Your task to perform on an android device: turn on sleep mode Image 0: 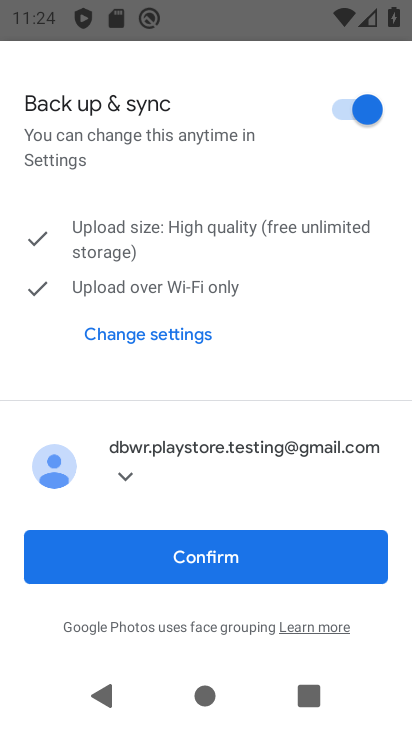
Step 0: press home button
Your task to perform on an android device: turn on sleep mode Image 1: 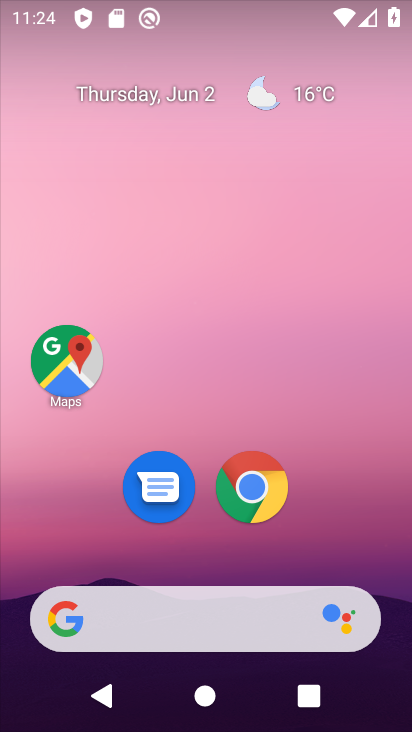
Step 1: drag from (374, 553) to (337, 228)
Your task to perform on an android device: turn on sleep mode Image 2: 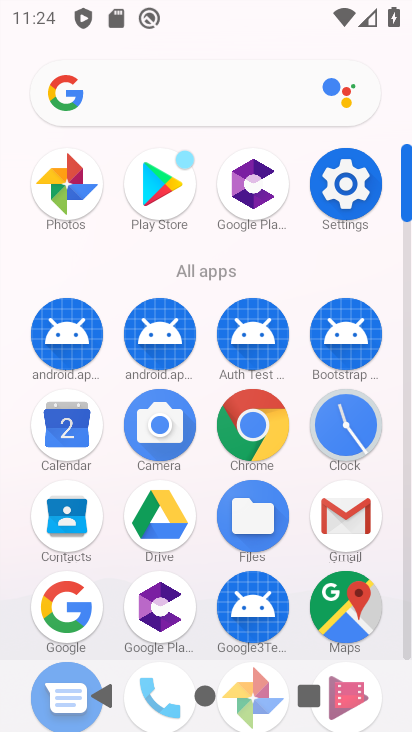
Step 2: click (343, 184)
Your task to perform on an android device: turn on sleep mode Image 3: 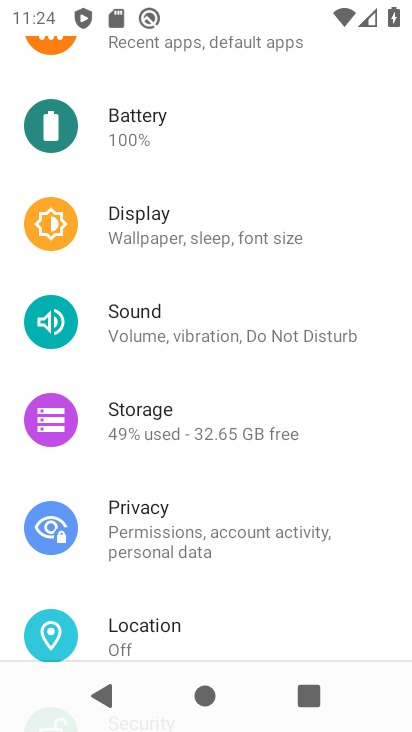
Step 3: click (239, 229)
Your task to perform on an android device: turn on sleep mode Image 4: 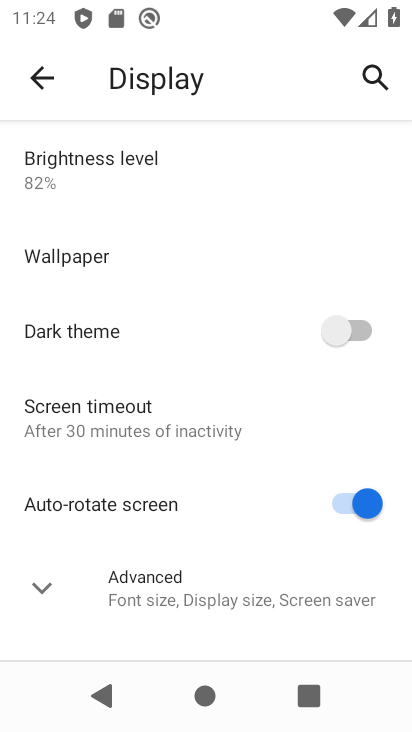
Step 4: click (39, 589)
Your task to perform on an android device: turn on sleep mode Image 5: 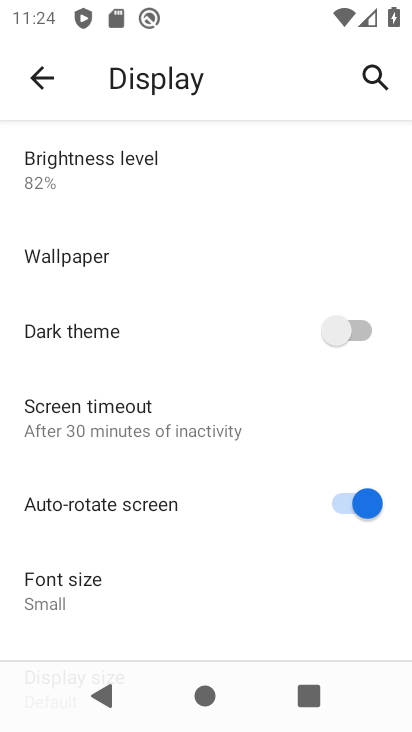
Step 5: task complete